Your task to perform on an android device: Set the phone to "Do not disturb". Image 0: 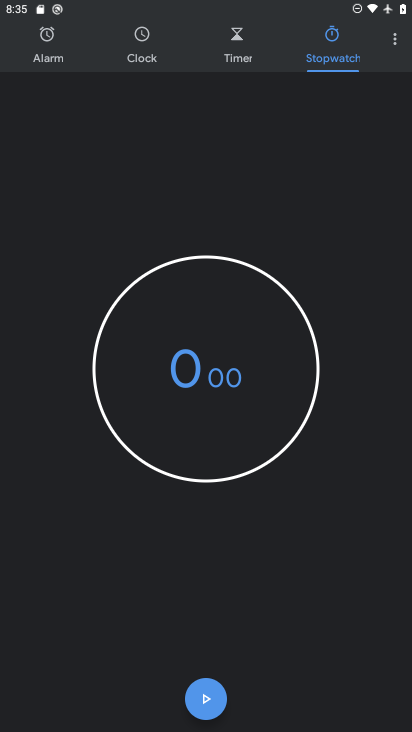
Step 0: press home button
Your task to perform on an android device: Set the phone to "Do not disturb". Image 1: 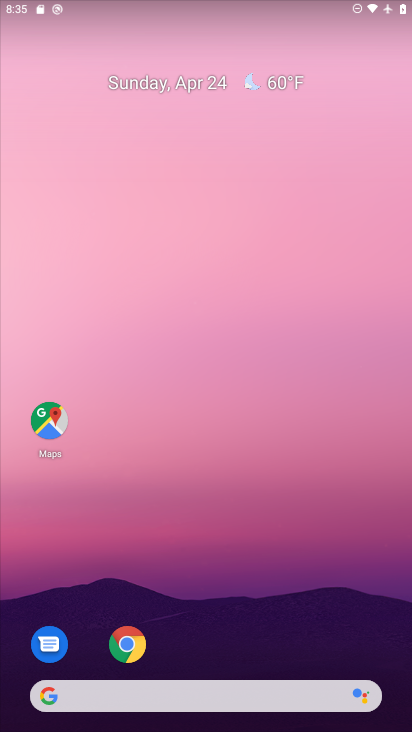
Step 1: task complete